Your task to perform on an android device: choose inbox layout in the gmail app Image 0: 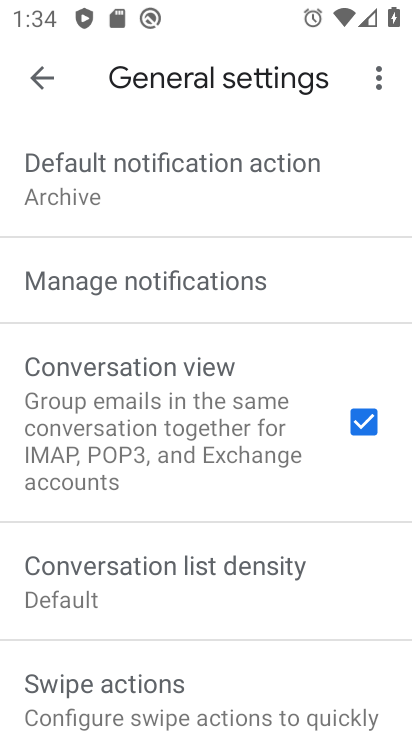
Step 0: drag from (273, 221) to (206, 686)
Your task to perform on an android device: choose inbox layout in the gmail app Image 1: 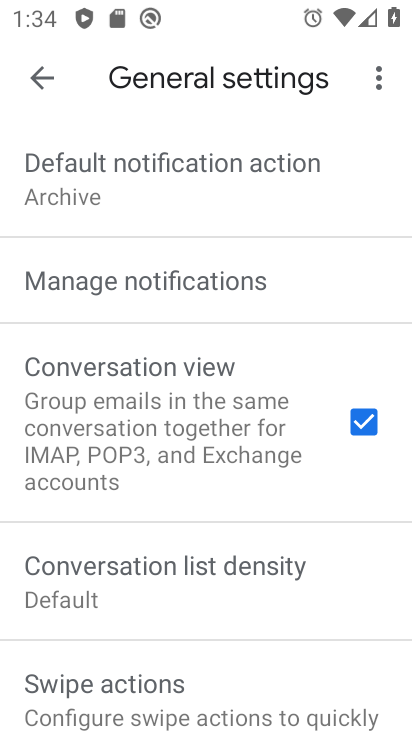
Step 1: click (47, 82)
Your task to perform on an android device: choose inbox layout in the gmail app Image 2: 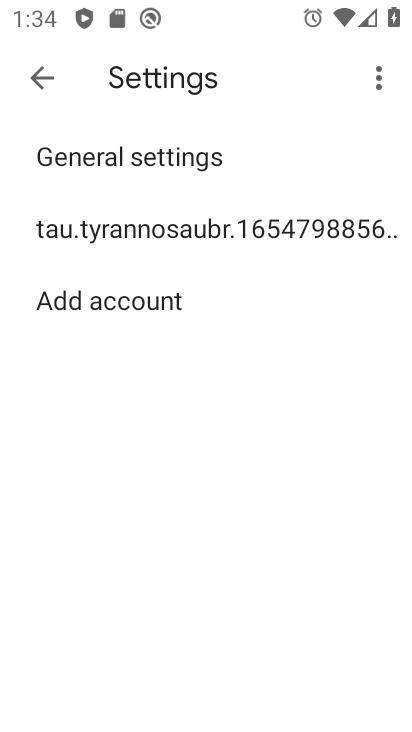
Step 2: click (157, 243)
Your task to perform on an android device: choose inbox layout in the gmail app Image 3: 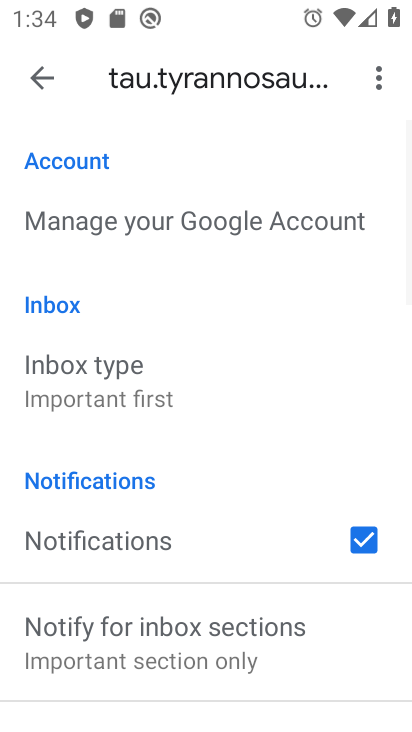
Step 3: click (196, 365)
Your task to perform on an android device: choose inbox layout in the gmail app Image 4: 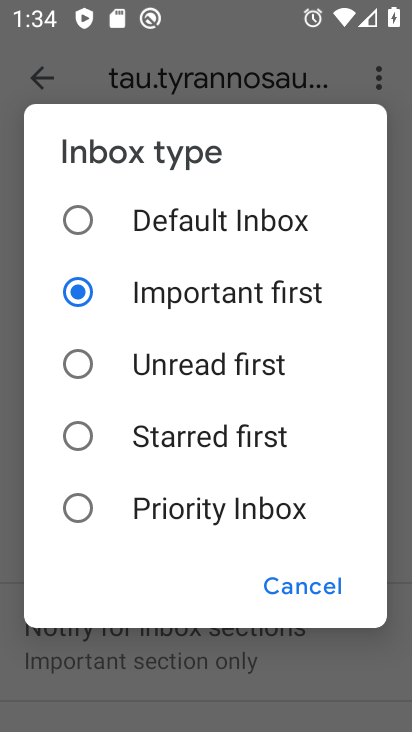
Step 4: click (232, 364)
Your task to perform on an android device: choose inbox layout in the gmail app Image 5: 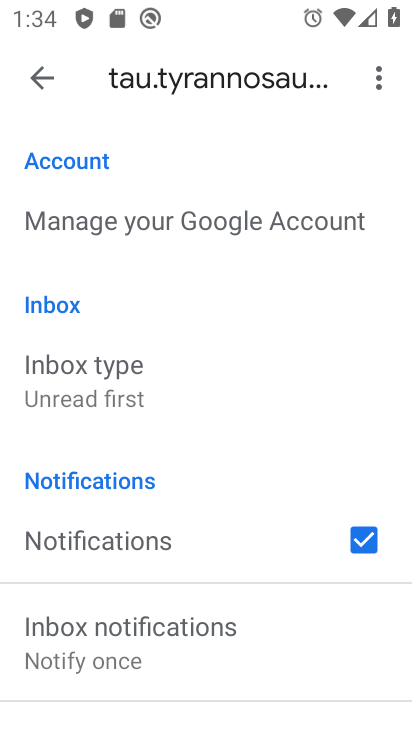
Step 5: task complete